Your task to perform on an android device: check battery use Image 0: 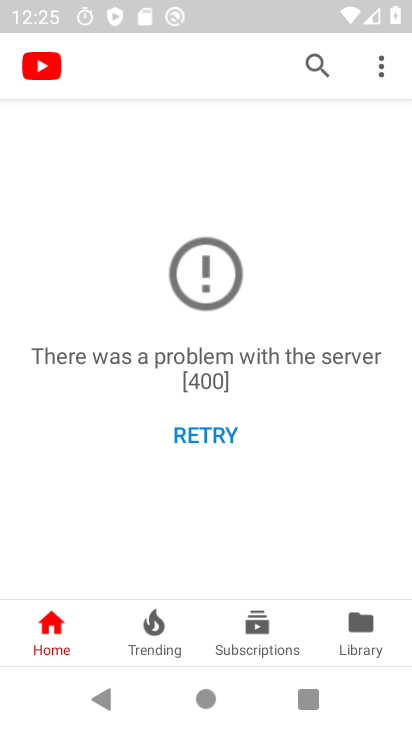
Step 0: press home button
Your task to perform on an android device: check battery use Image 1: 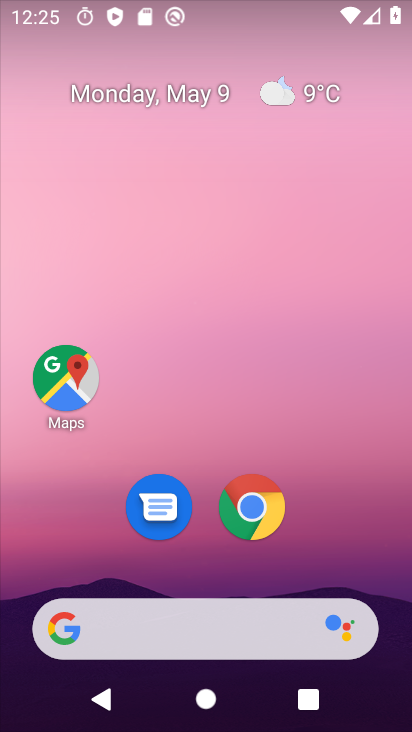
Step 1: drag from (225, 725) to (233, 192)
Your task to perform on an android device: check battery use Image 2: 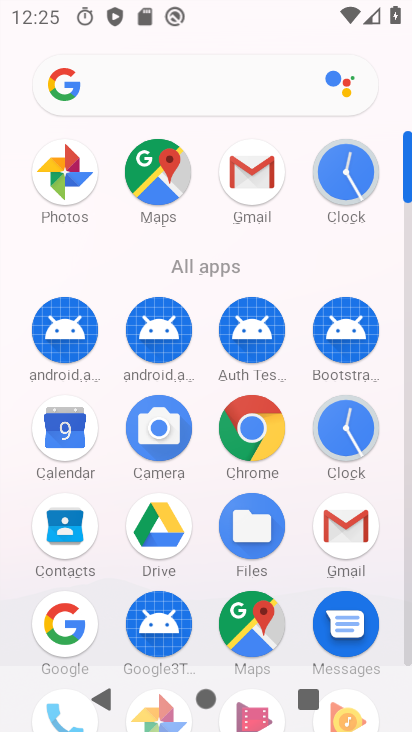
Step 2: drag from (16, 598) to (19, 166)
Your task to perform on an android device: check battery use Image 3: 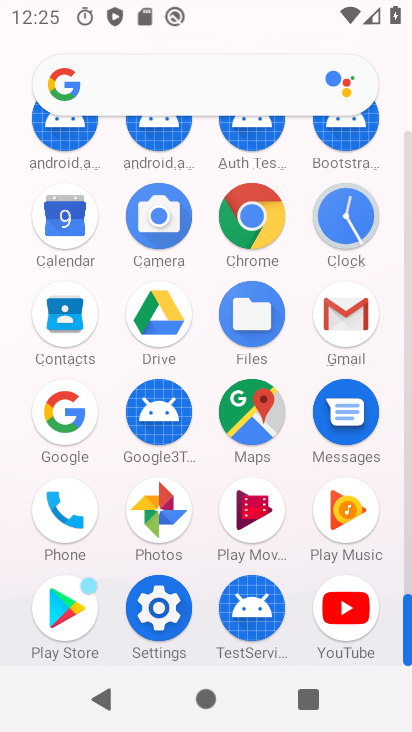
Step 3: click (165, 609)
Your task to perform on an android device: check battery use Image 4: 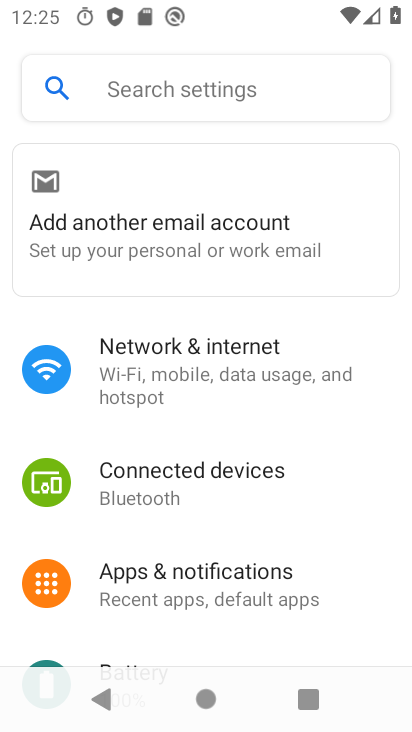
Step 4: drag from (203, 646) to (200, 244)
Your task to perform on an android device: check battery use Image 5: 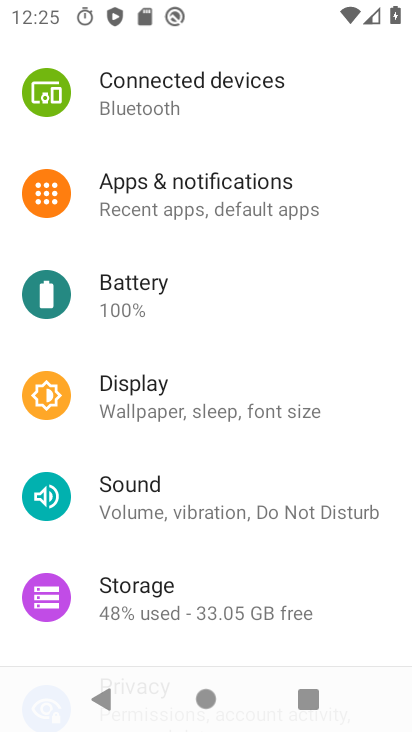
Step 5: click (130, 295)
Your task to perform on an android device: check battery use Image 6: 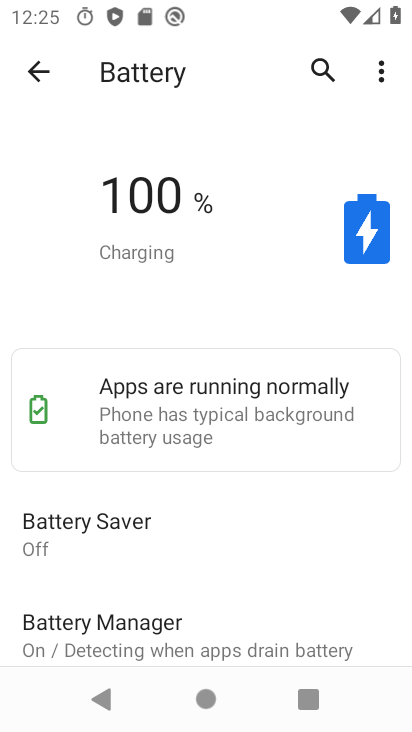
Step 6: click (381, 77)
Your task to perform on an android device: check battery use Image 7: 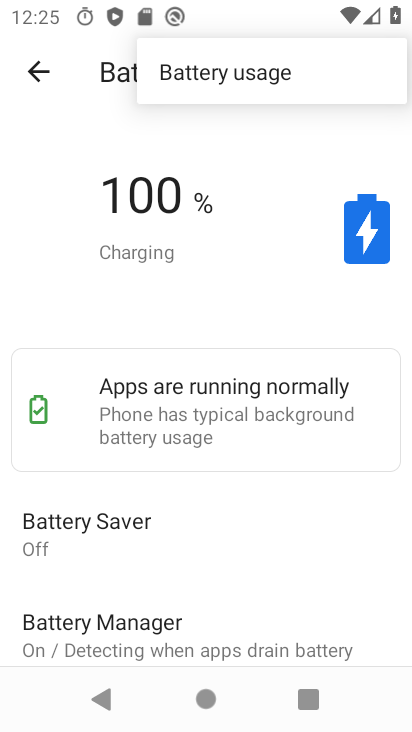
Step 7: click (215, 78)
Your task to perform on an android device: check battery use Image 8: 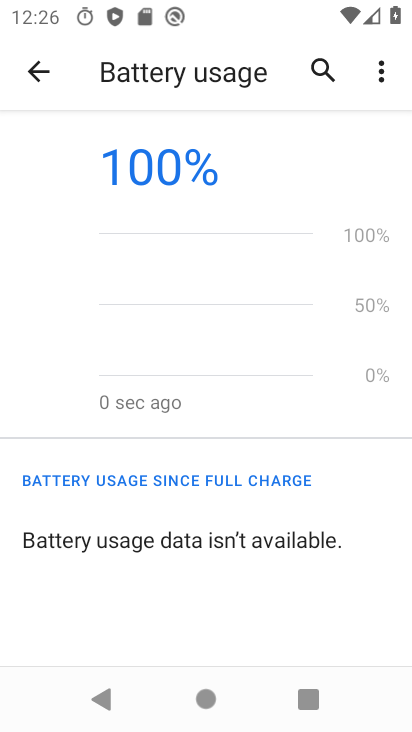
Step 8: task complete